Your task to perform on an android device: Go to display settings Image 0: 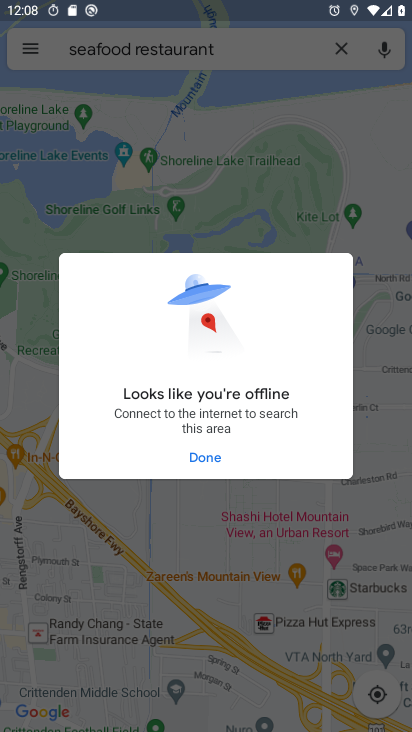
Step 0: task impossible